Your task to perform on an android device: Go to calendar. Show me events next week Image 0: 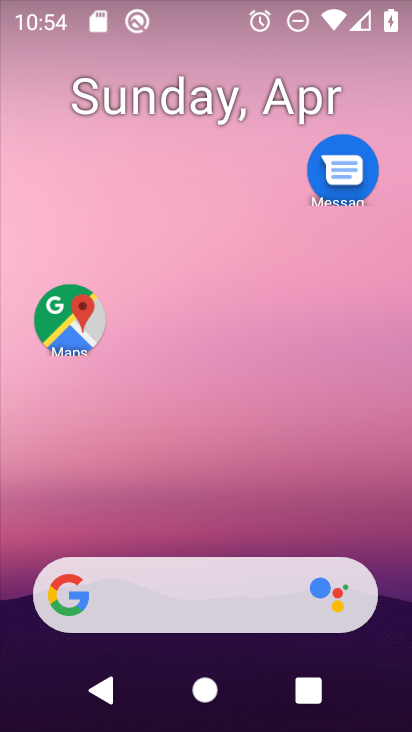
Step 0: drag from (168, 532) to (184, 105)
Your task to perform on an android device: Go to calendar. Show me events next week Image 1: 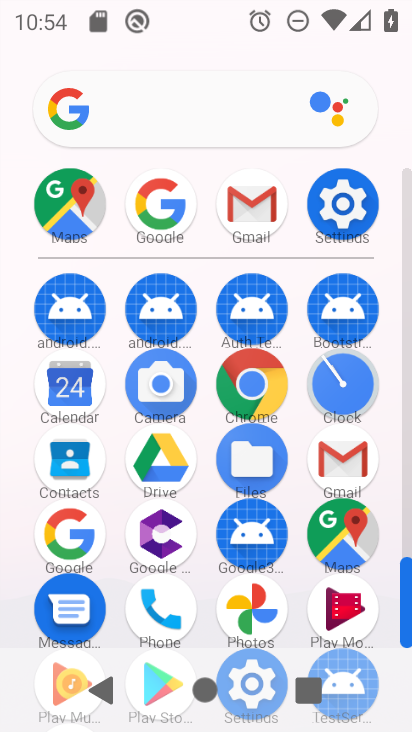
Step 1: click (55, 397)
Your task to perform on an android device: Go to calendar. Show me events next week Image 2: 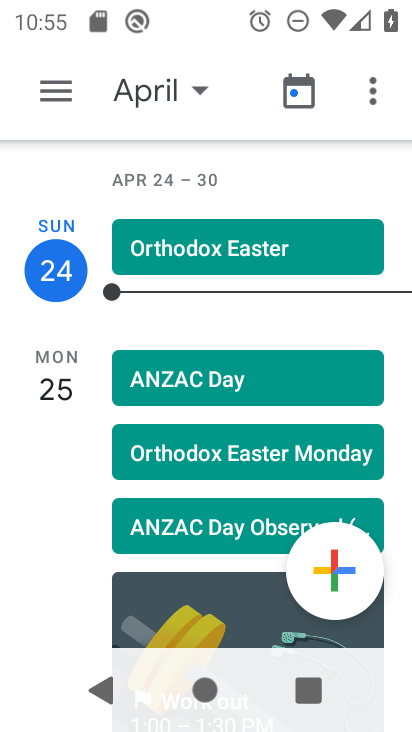
Step 2: click (152, 101)
Your task to perform on an android device: Go to calendar. Show me events next week Image 3: 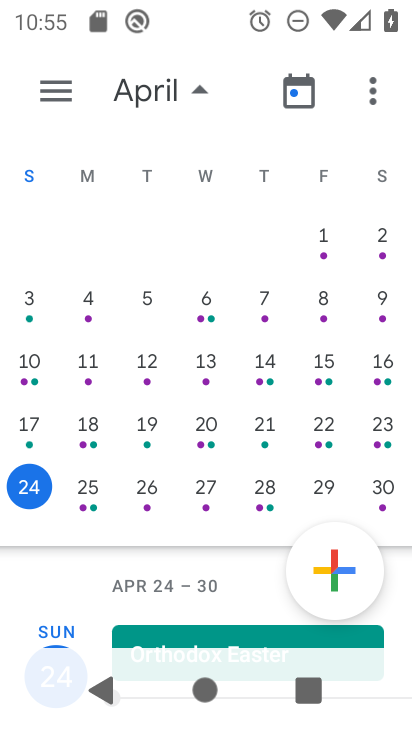
Step 3: drag from (341, 308) to (1, 278)
Your task to perform on an android device: Go to calendar. Show me events next week Image 4: 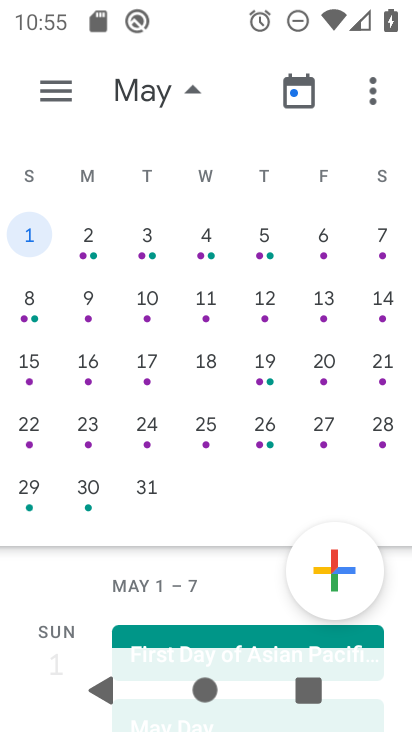
Step 4: click (306, 233)
Your task to perform on an android device: Go to calendar. Show me events next week Image 5: 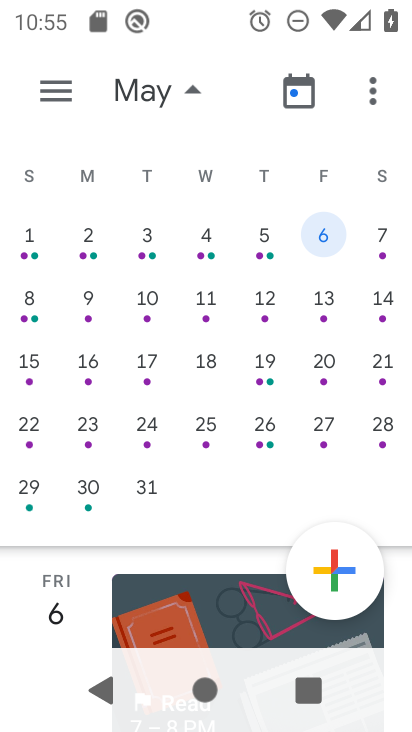
Step 5: task complete